Your task to perform on an android device: Open the calendar app, open the side menu, and click the "Day" option Image 0: 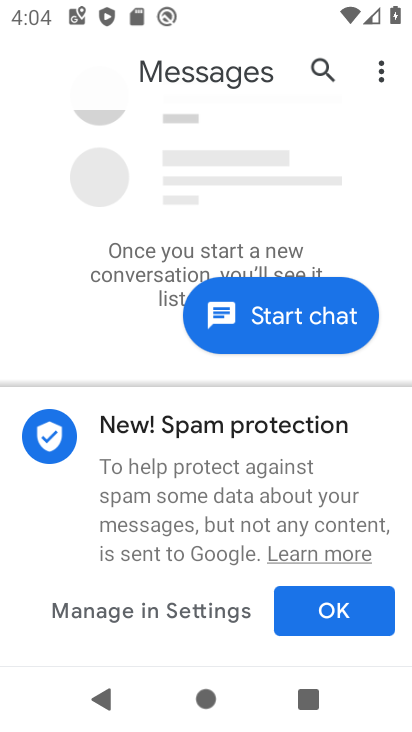
Step 0: press home button
Your task to perform on an android device: Open the calendar app, open the side menu, and click the "Day" option Image 1: 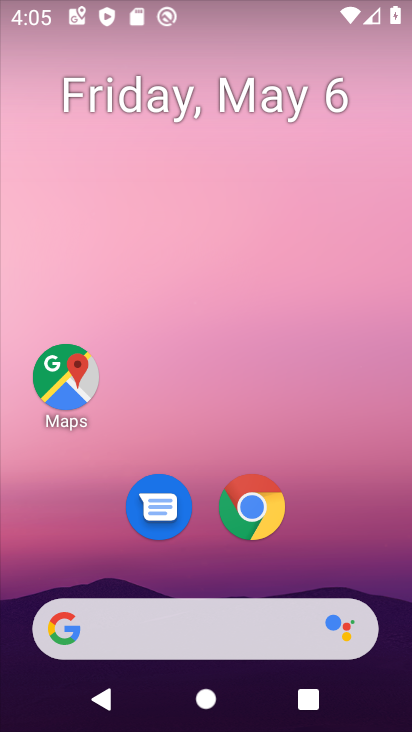
Step 1: drag from (353, 546) to (277, 167)
Your task to perform on an android device: Open the calendar app, open the side menu, and click the "Day" option Image 2: 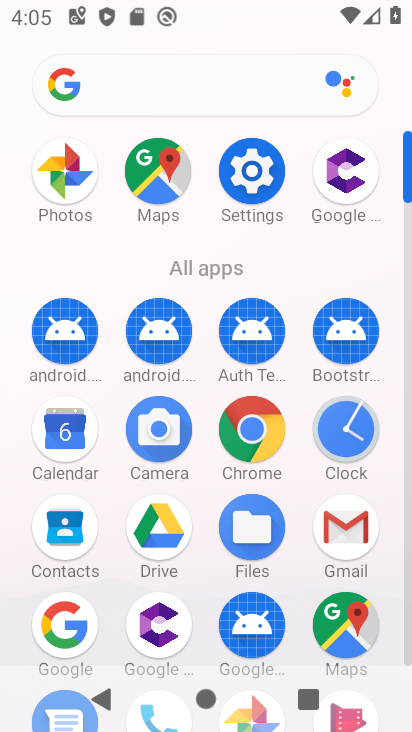
Step 2: click (65, 447)
Your task to perform on an android device: Open the calendar app, open the side menu, and click the "Day" option Image 3: 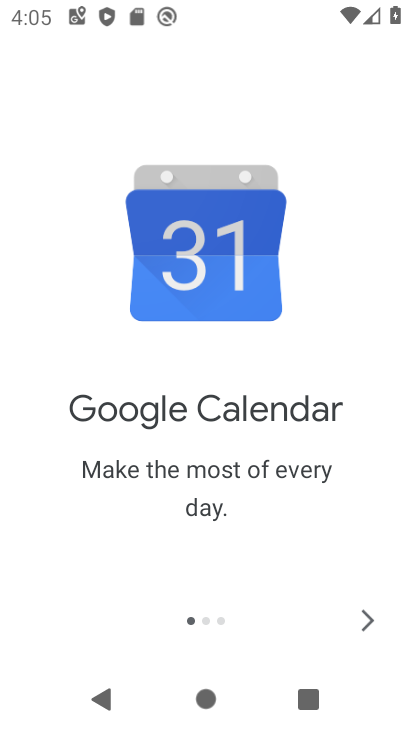
Step 3: click (371, 618)
Your task to perform on an android device: Open the calendar app, open the side menu, and click the "Day" option Image 4: 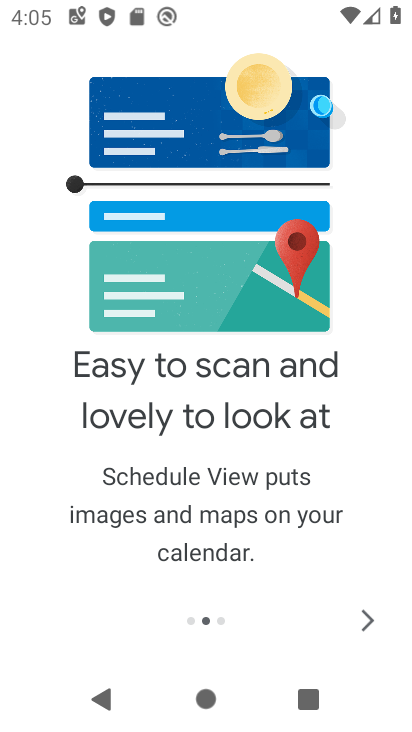
Step 4: click (371, 618)
Your task to perform on an android device: Open the calendar app, open the side menu, and click the "Day" option Image 5: 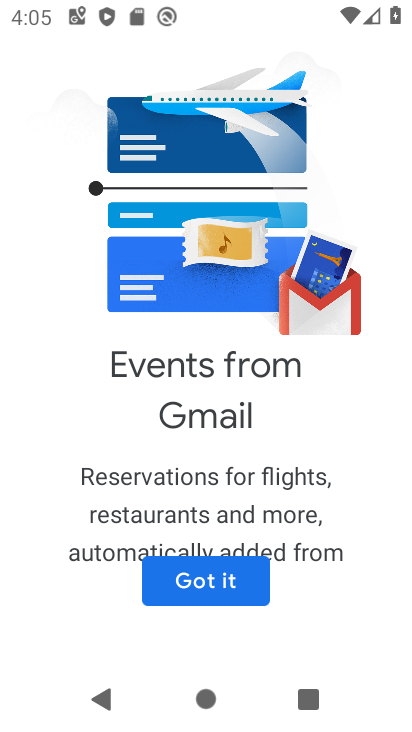
Step 5: click (221, 579)
Your task to perform on an android device: Open the calendar app, open the side menu, and click the "Day" option Image 6: 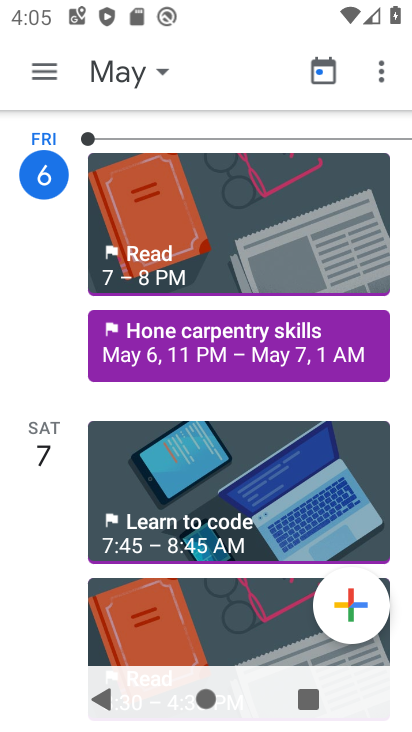
Step 6: click (40, 71)
Your task to perform on an android device: Open the calendar app, open the side menu, and click the "Day" option Image 7: 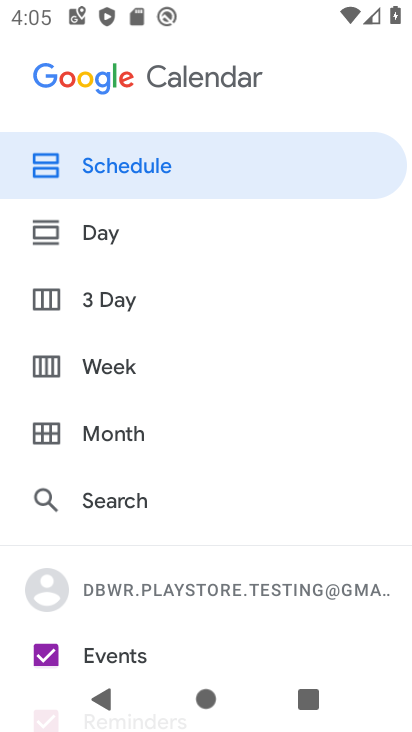
Step 7: click (101, 235)
Your task to perform on an android device: Open the calendar app, open the side menu, and click the "Day" option Image 8: 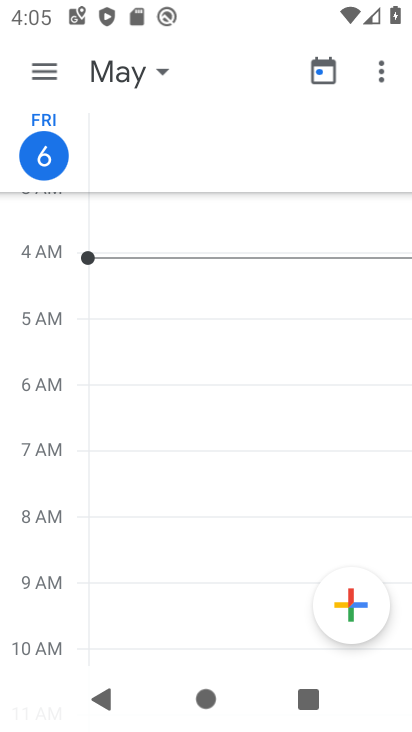
Step 8: task complete